Your task to perform on an android device: change the upload size in google photos Image 0: 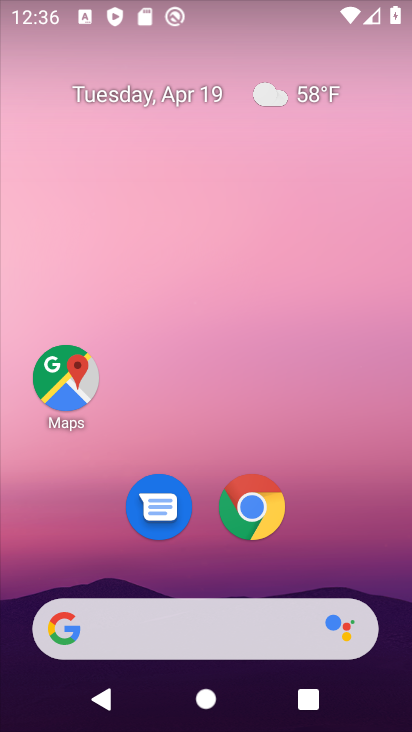
Step 0: drag from (211, 571) to (259, 71)
Your task to perform on an android device: change the upload size in google photos Image 1: 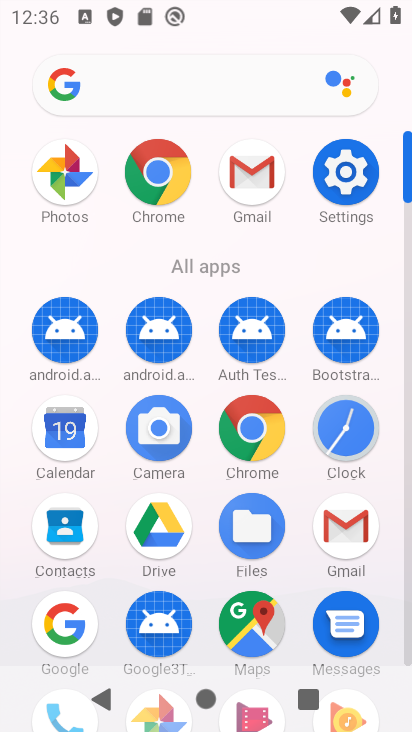
Step 1: drag from (216, 651) to (266, 321)
Your task to perform on an android device: change the upload size in google photos Image 2: 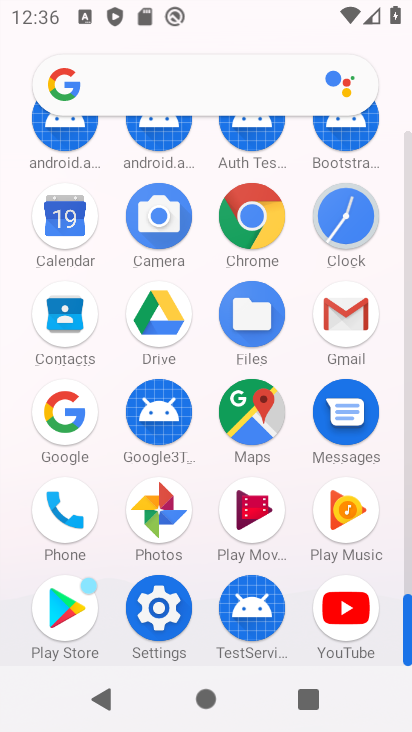
Step 2: click (167, 515)
Your task to perform on an android device: change the upload size in google photos Image 3: 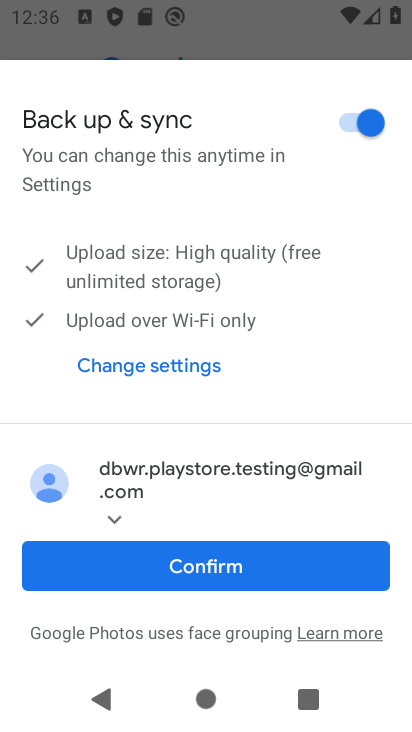
Step 3: click (199, 551)
Your task to perform on an android device: change the upload size in google photos Image 4: 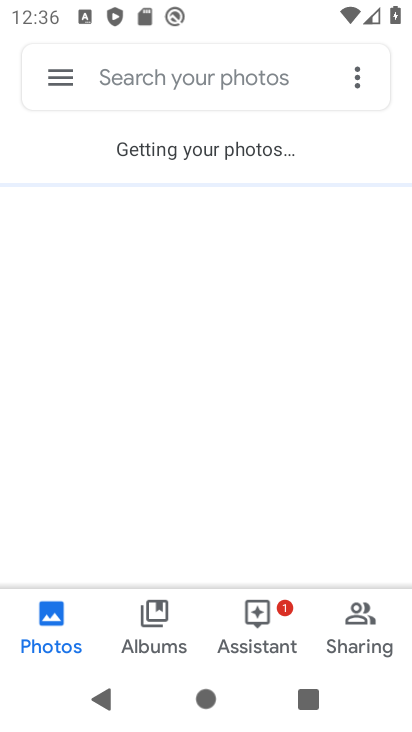
Step 4: click (45, 71)
Your task to perform on an android device: change the upload size in google photos Image 5: 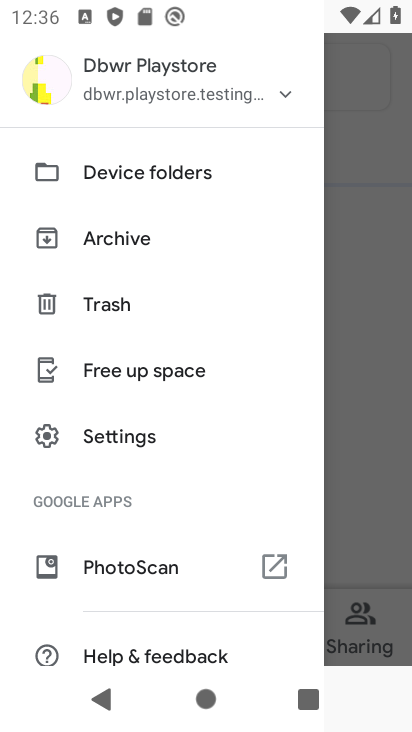
Step 5: click (173, 435)
Your task to perform on an android device: change the upload size in google photos Image 6: 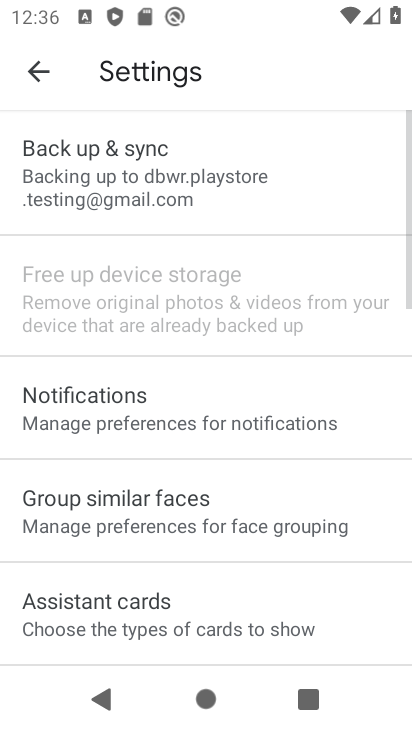
Step 6: click (178, 188)
Your task to perform on an android device: change the upload size in google photos Image 7: 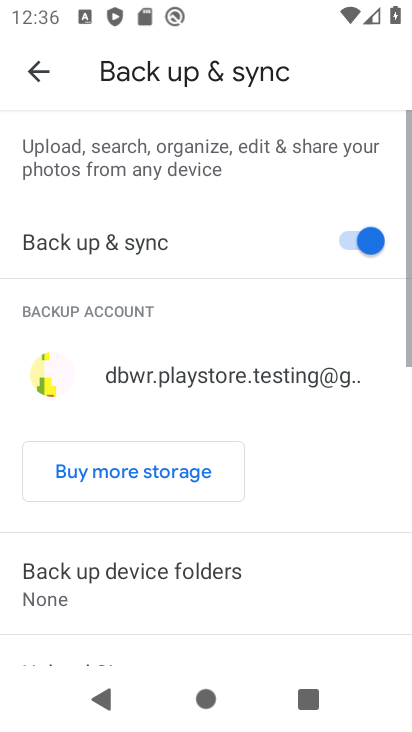
Step 7: drag from (154, 600) to (176, 227)
Your task to perform on an android device: change the upload size in google photos Image 8: 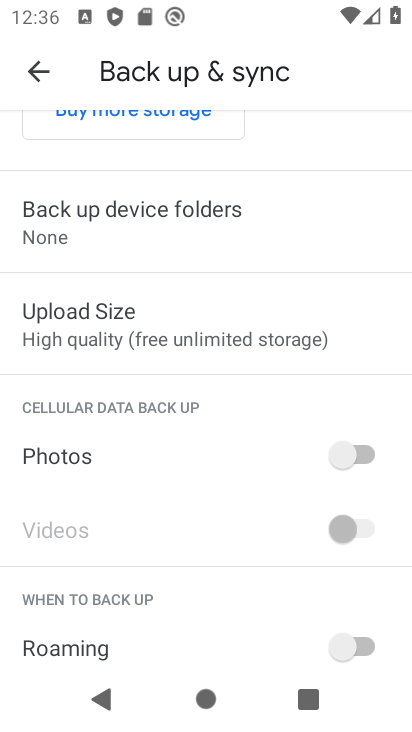
Step 8: click (118, 347)
Your task to perform on an android device: change the upload size in google photos Image 9: 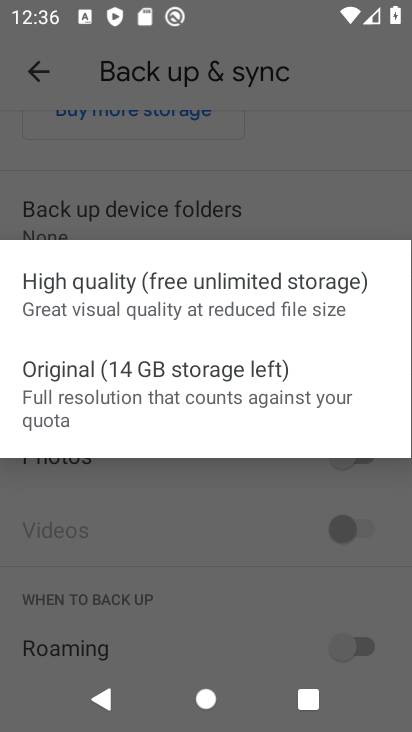
Step 9: click (147, 399)
Your task to perform on an android device: change the upload size in google photos Image 10: 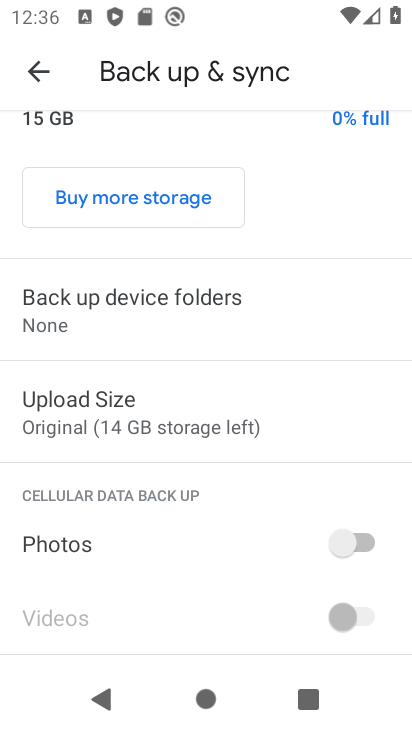
Step 10: task complete